Your task to perform on an android device: check out phone information Image 0: 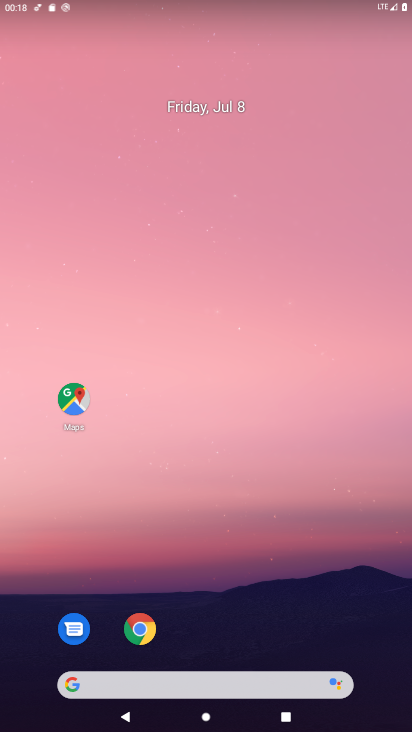
Step 0: drag from (293, 570) to (372, 43)
Your task to perform on an android device: check out phone information Image 1: 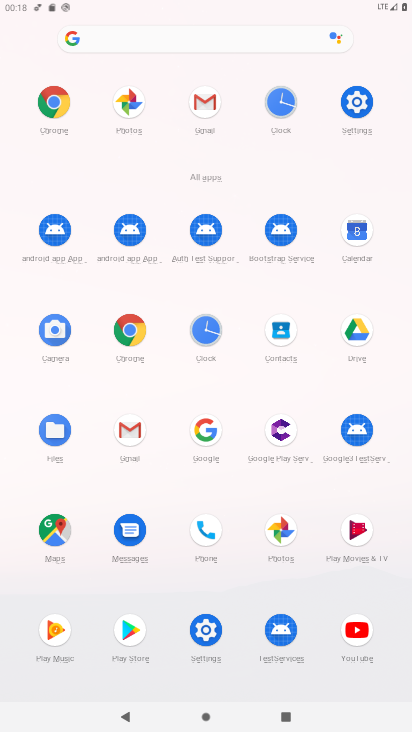
Step 1: click (356, 98)
Your task to perform on an android device: check out phone information Image 2: 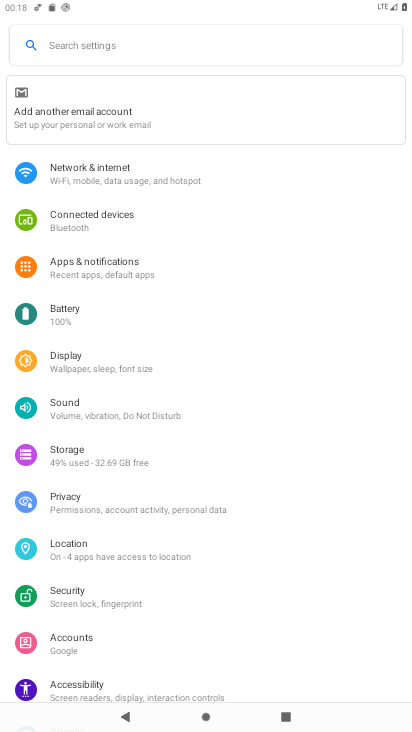
Step 2: drag from (96, 635) to (101, 240)
Your task to perform on an android device: check out phone information Image 3: 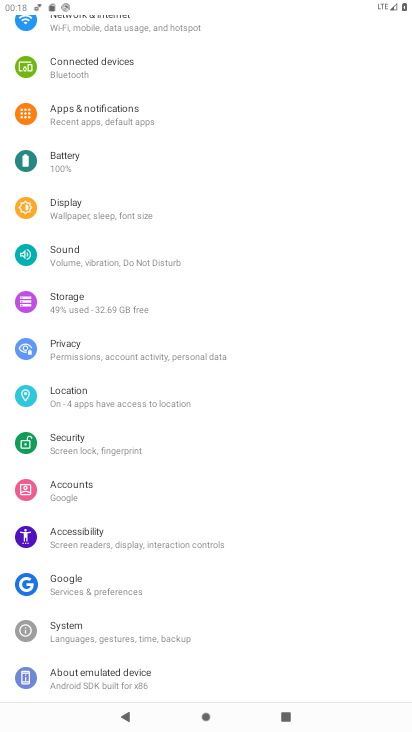
Step 3: drag from (108, 661) to (150, 477)
Your task to perform on an android device: check out phone information Image 4: 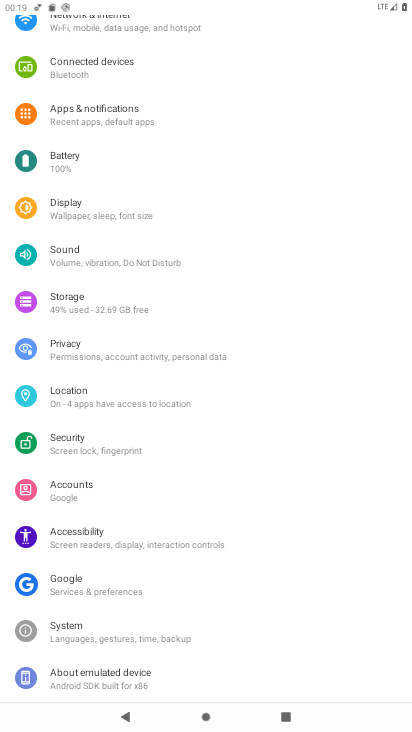
Step 4: click (145, 684)
Your task to perform on an android device: check out phone information Image 5: 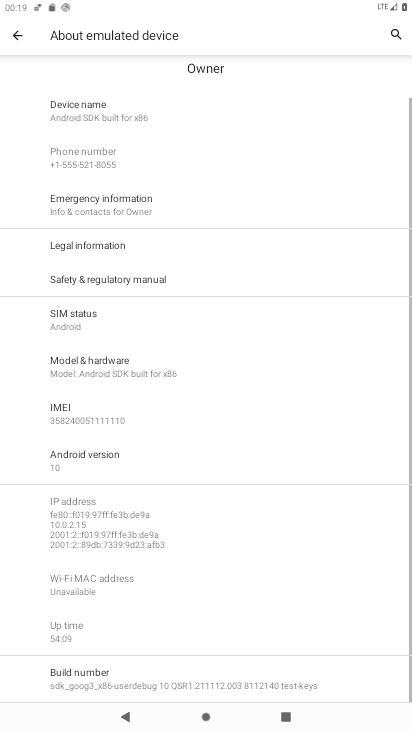
Step 5: task complete